Your task to perform on an android device: Clear the cart on bestbuy. Search for "apple airpods pro" on bestbuy, select the first entry, and add it to the cart. Image 0: 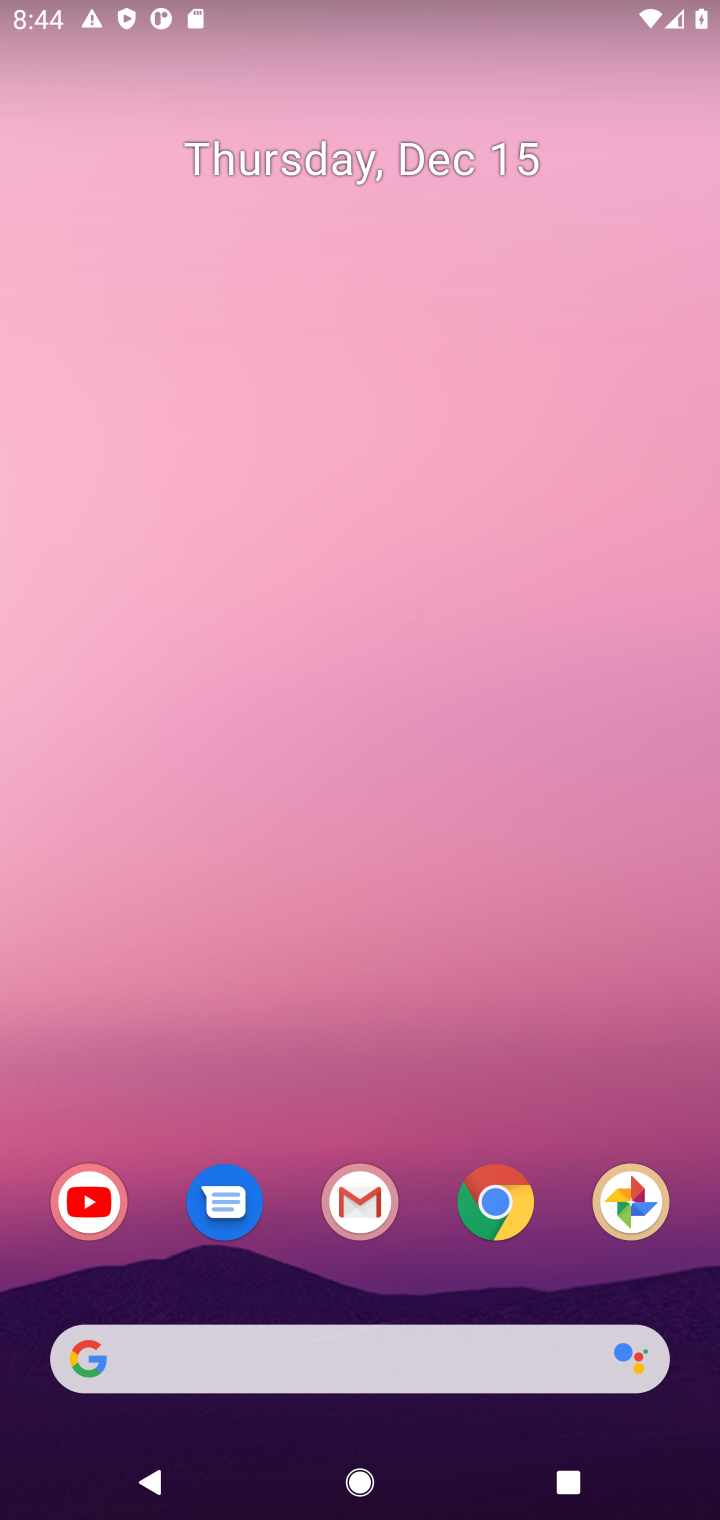
Step 0: click (506, 1211)
Your task to perform on an android device: Clear the cart on bestbuy. Search for "apple airpods pro" on bestbuy, select the first entry, and add it to the cart. Image 1: 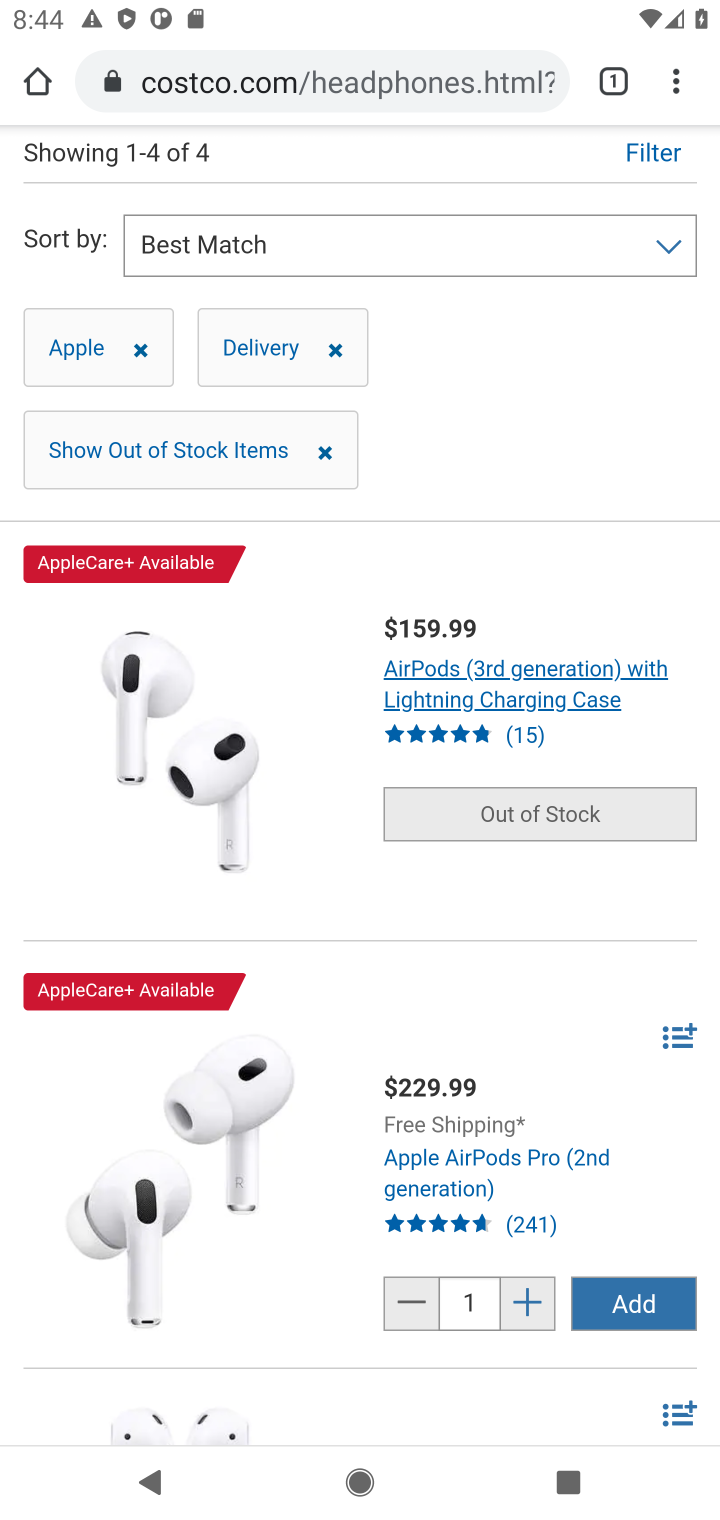
Step 1: click (257, 91)
Your task to perform on an android device: Clear the cart on bestbuy. Search for "apple airpods pro" on bestbuy, select the first entry, and add it to the cart. Image 2: 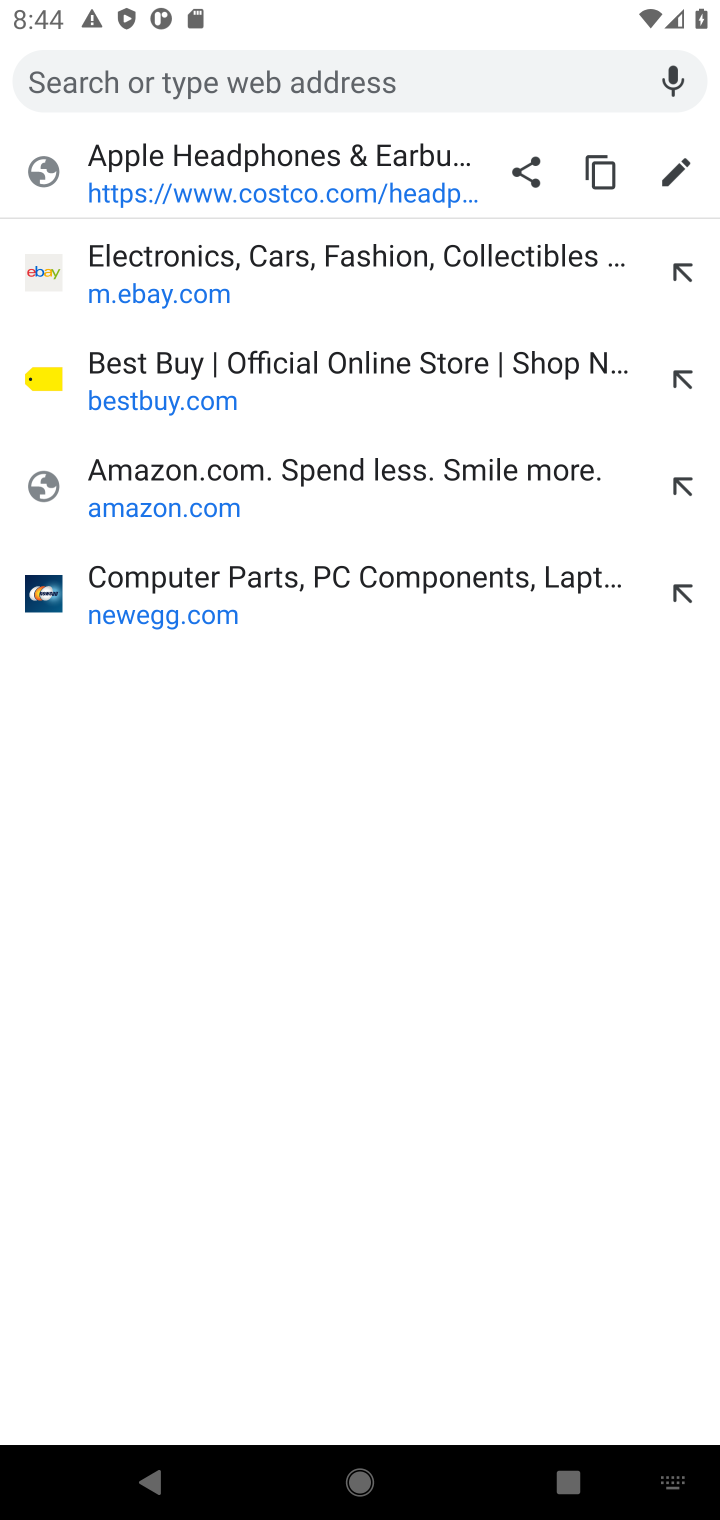
Step 2: click (132, 366)
Your task to perform on an android device: Clear the cart on bestbuy. Search for "apple airpods pro" on bestbuy, select the first entry, and add it to the cart. Image 3: 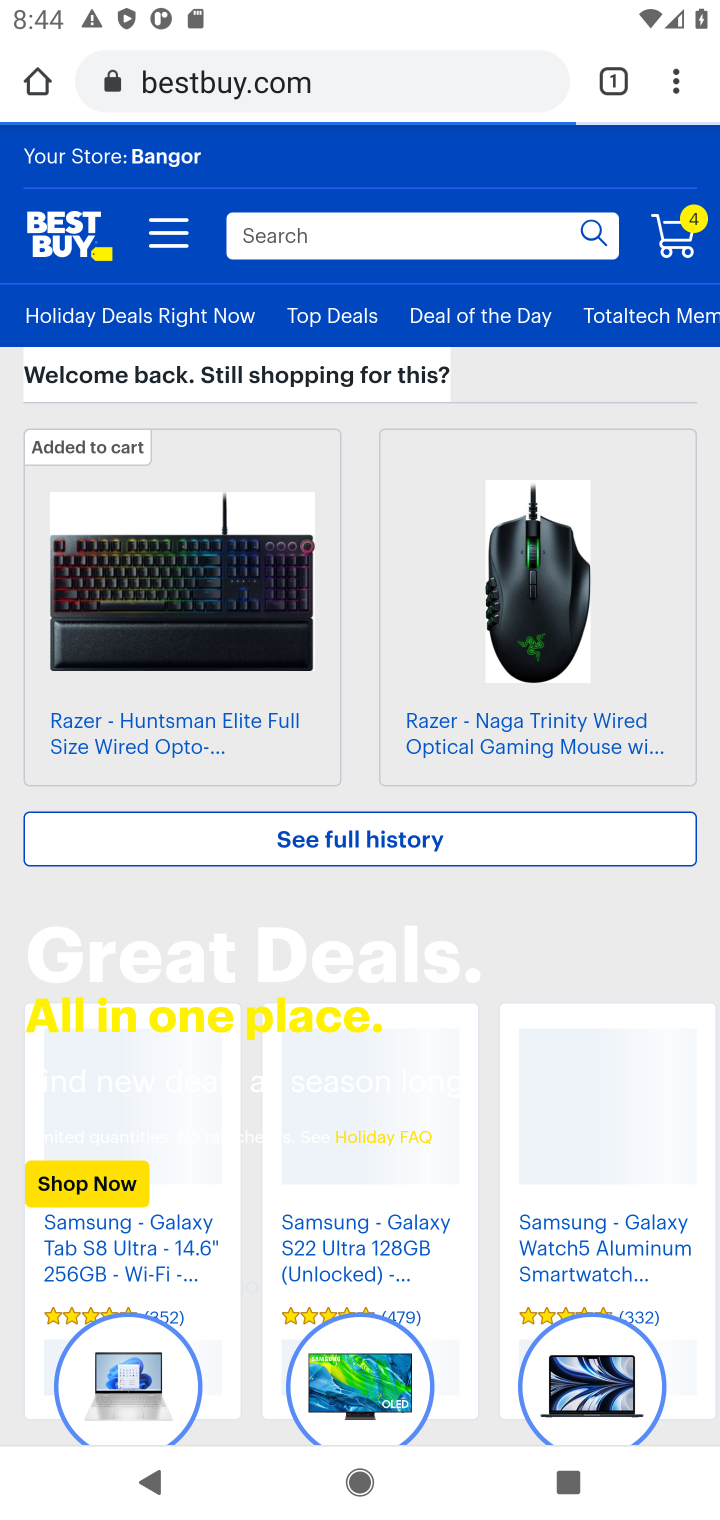
Step 3: click (677, 241)
Your task to perform on an android device: Clear the cart on bestbuy. Search for "apple airpods pro" on bestbuy, select the first entry, and add it to the cart. Image 4: 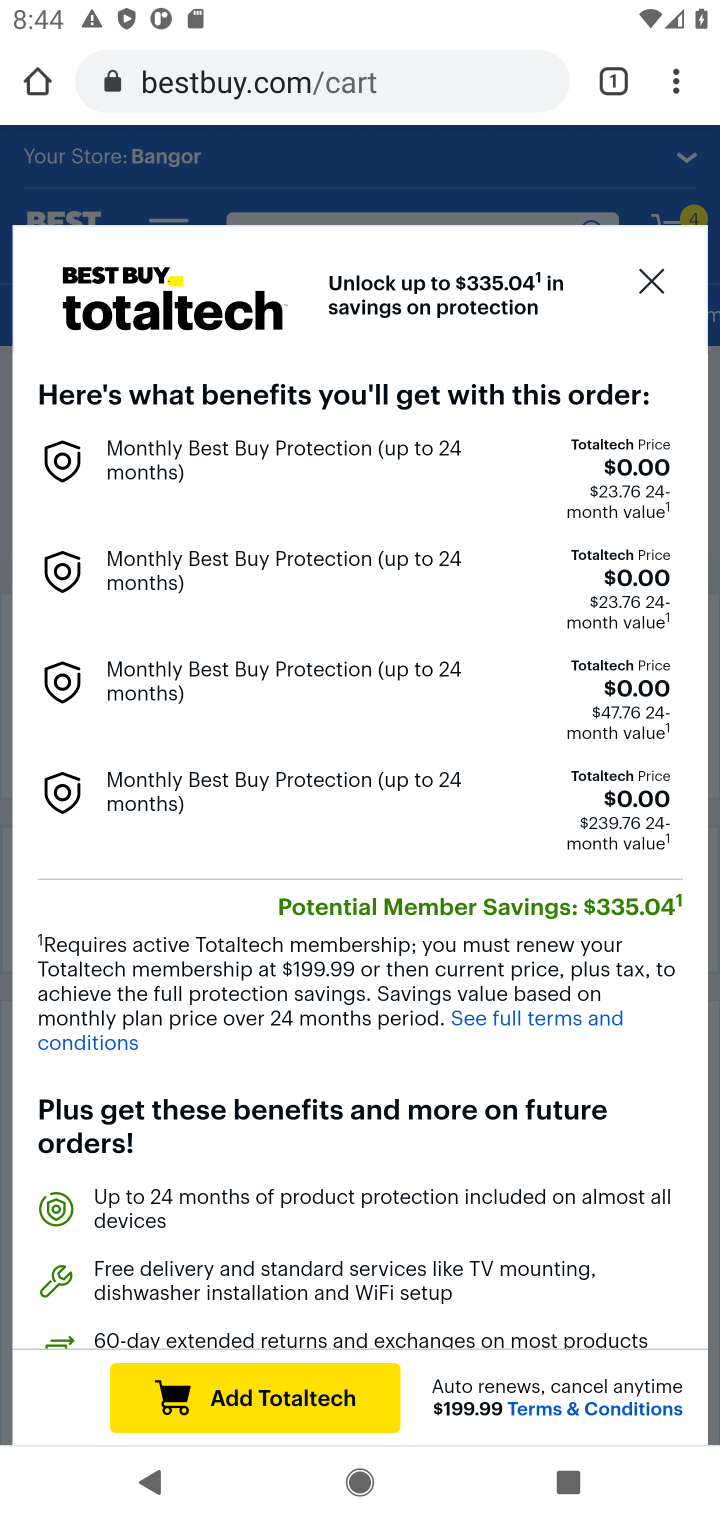
Step 4: click (652, 274)
Your task to perform on an android device: Clear the cart on bestbuy. Search for "apple airpods pro" on bestbuy, select the first entry, and add it to the cart. Image 5: 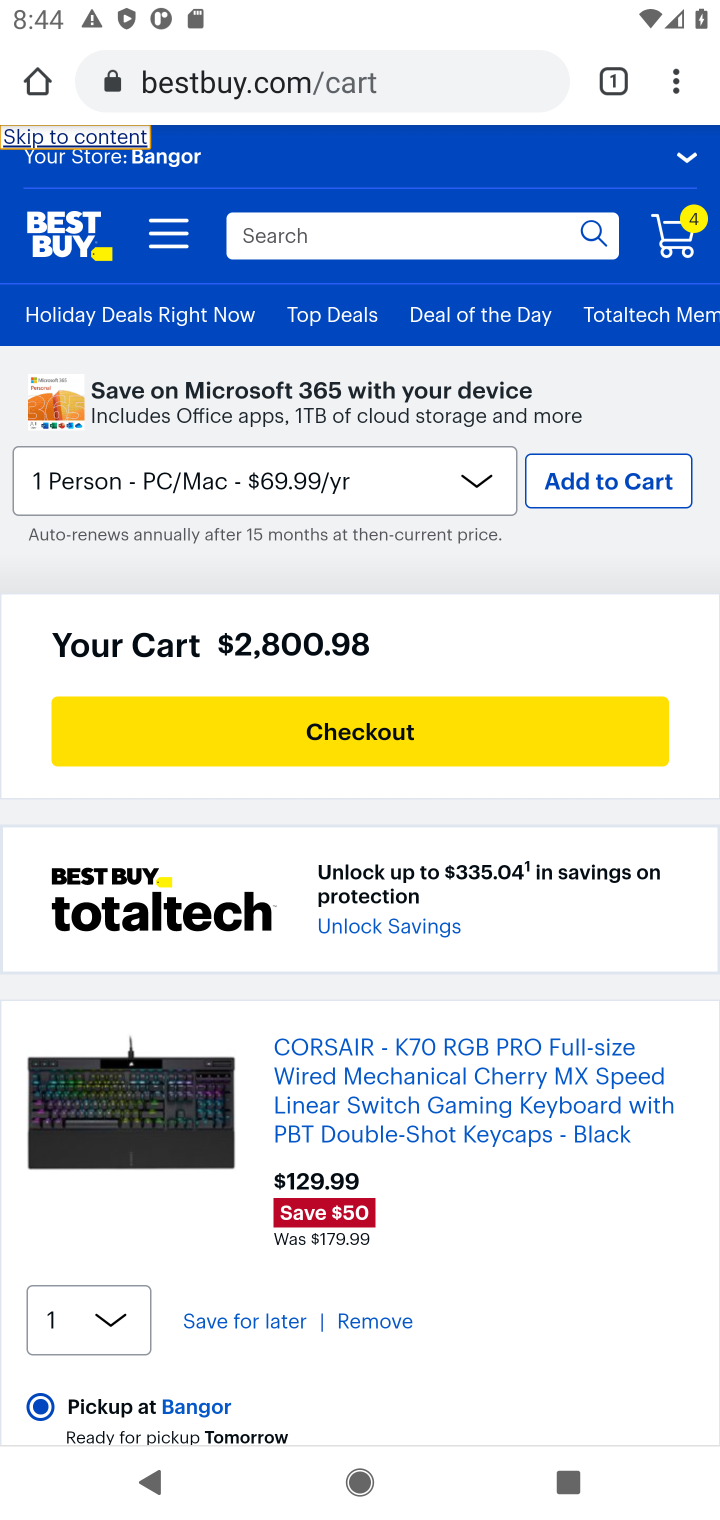
Step 5: click (356, 1322)
Your task to perform on an android device: Clear the cart on bestbuy. Search for "apple airpods pro" on bestbuy, select the first entry, and add it to the cart. Image 6: 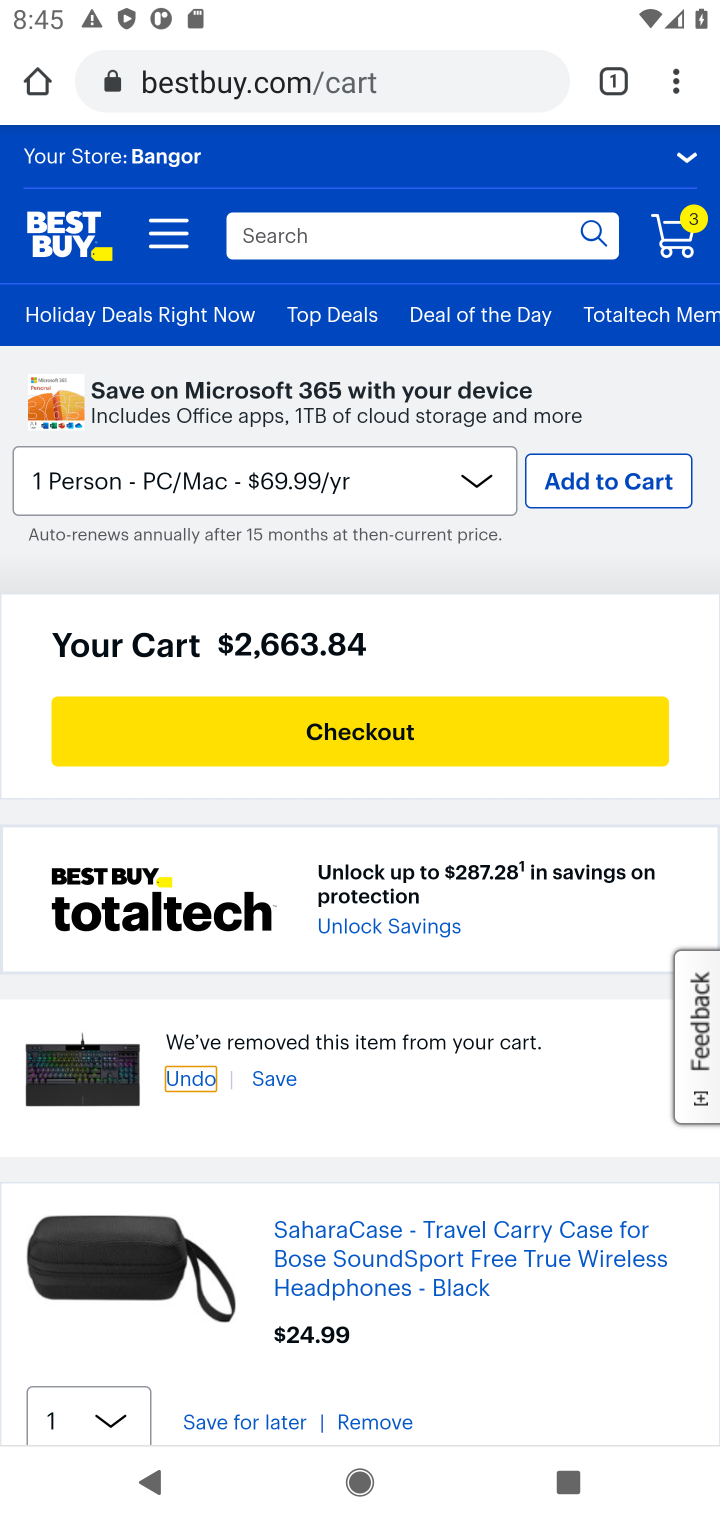
Step 6: drag from (332, 1182) to (302, 744)
Your task to perform on an android device: Clear the cart on bestbuy. Search for "apple airpods pro" on bestbuy, select the first entry, and add it to the cart. Image 7: 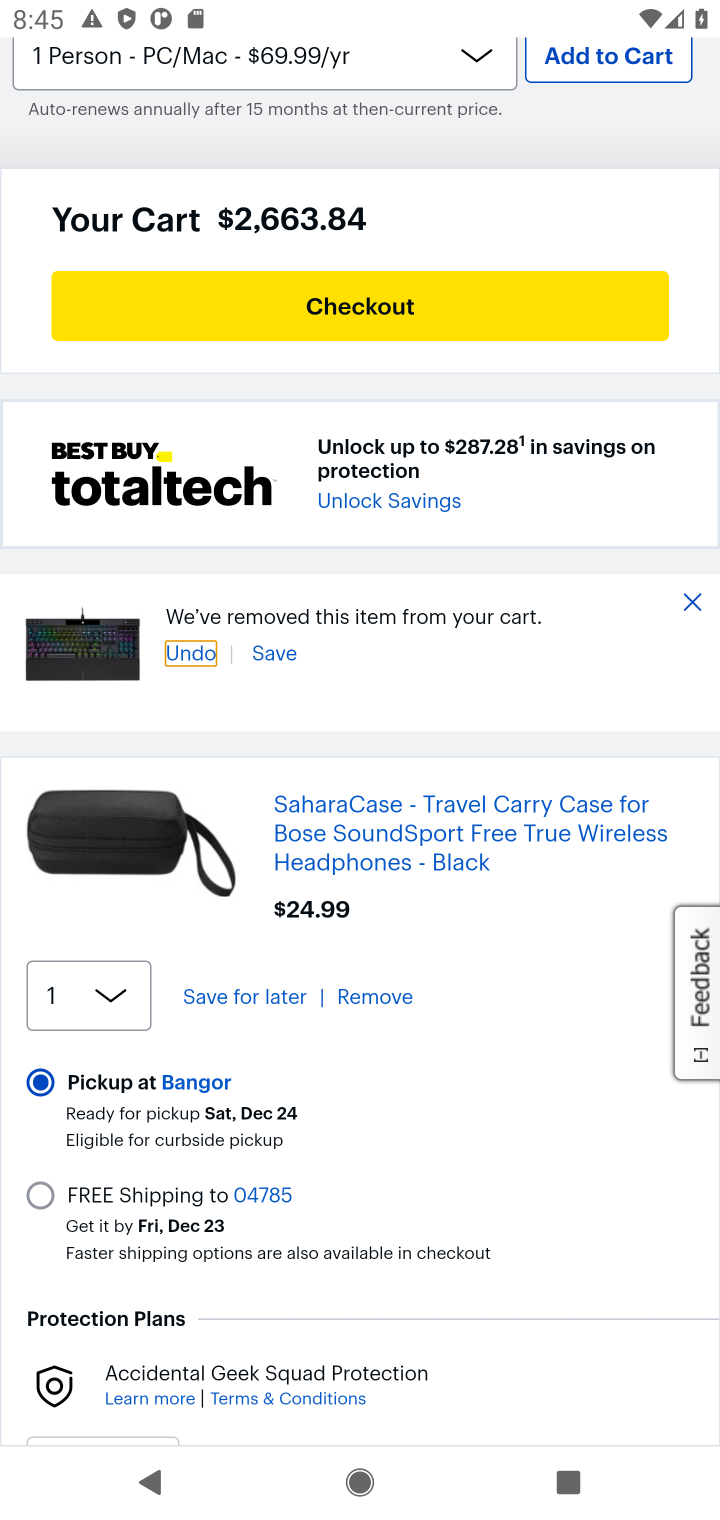
Step 7: click (382, 993)
Your task to perform on an android device: Clear the cart on bestbuy. Search for "apple airpods pro" on bestbuy, select the first entry, and add it to the cart. Image 8: 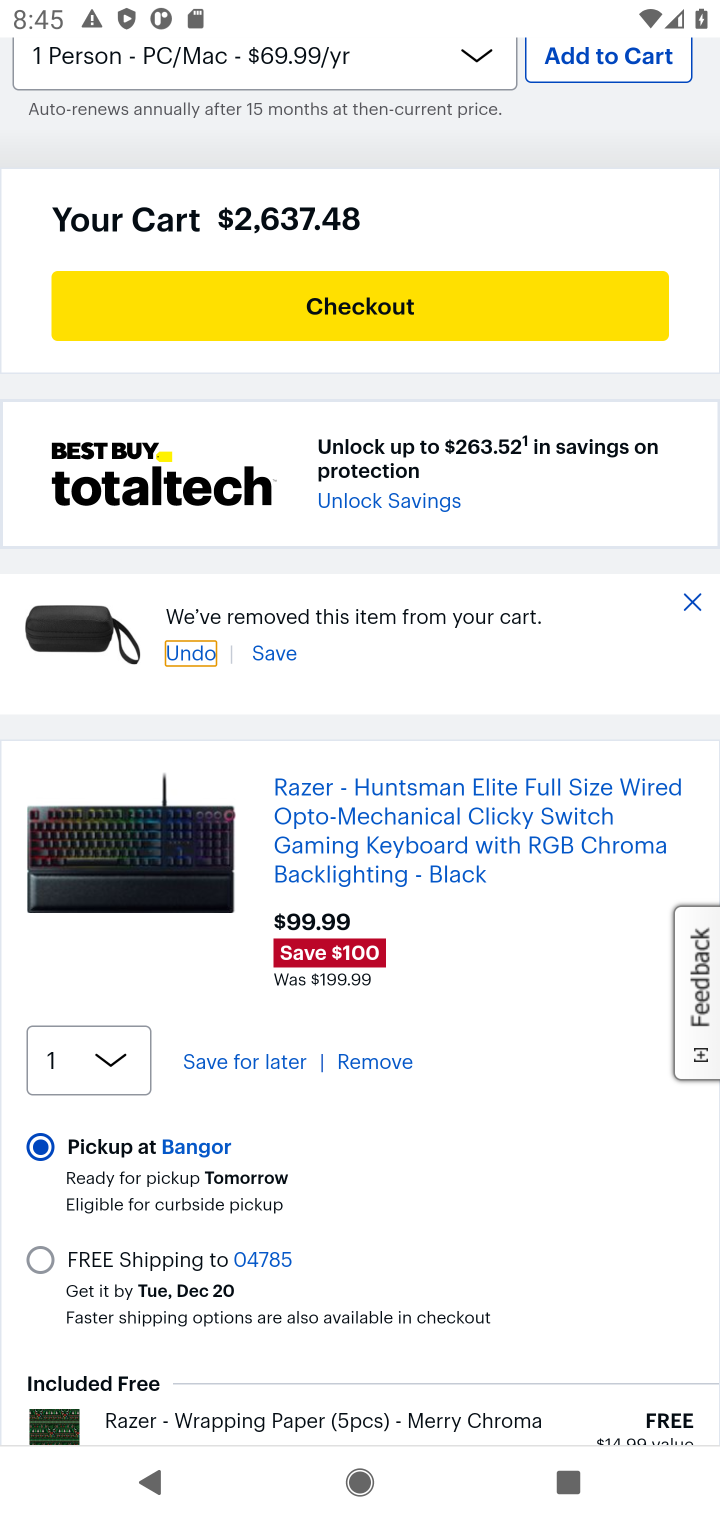
Step 8: click (368, 1060)
Your task to perform on an android device: Clear the cart on bestbuy. Search for "apple airpods pro" on bestbuy, select the first entry, and add it to the cart. Image 9: 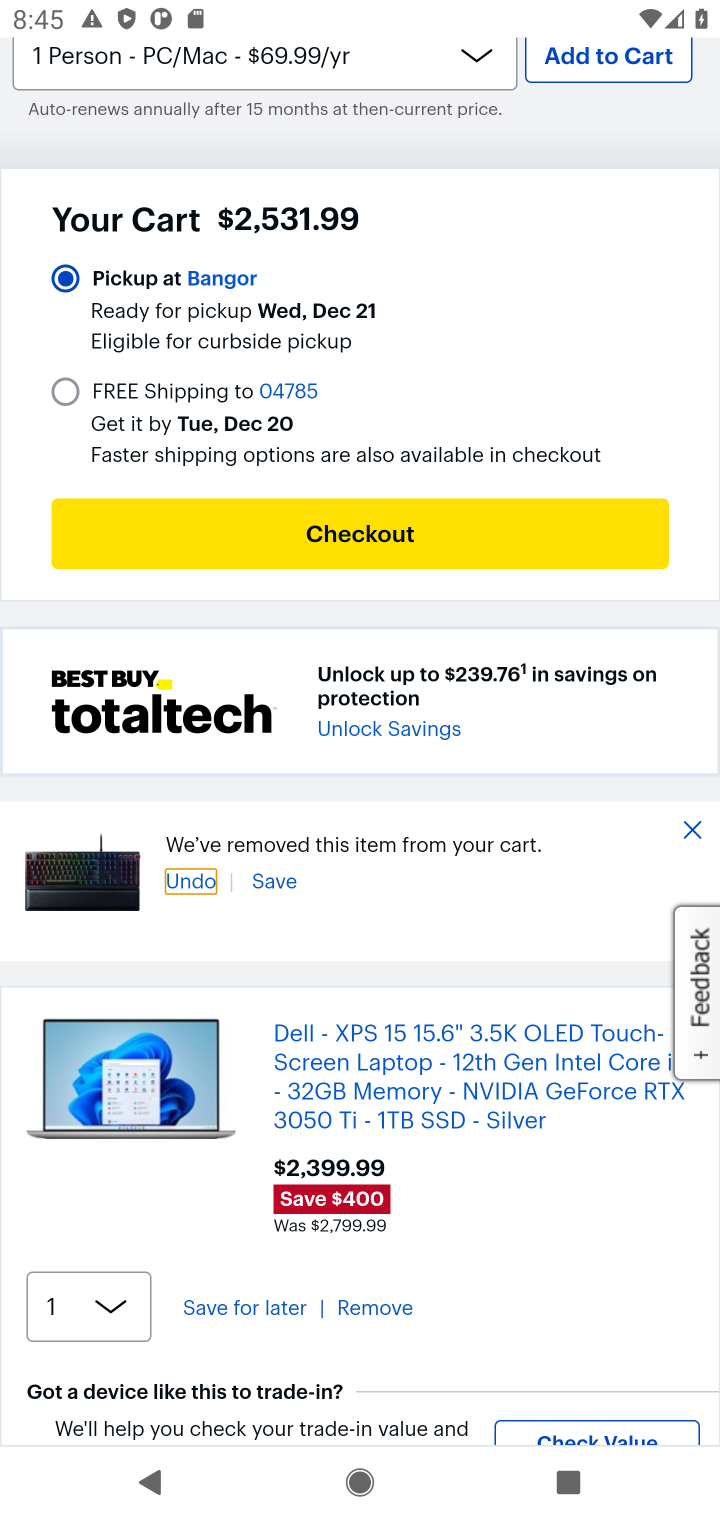
Step 9: click (393, 1308)
Your task to perform on an android device: Clear the cart on bestbuy. Search for "apple airpods pro" on bestbuy, select the first entry, and add it to the cart. Image 10: 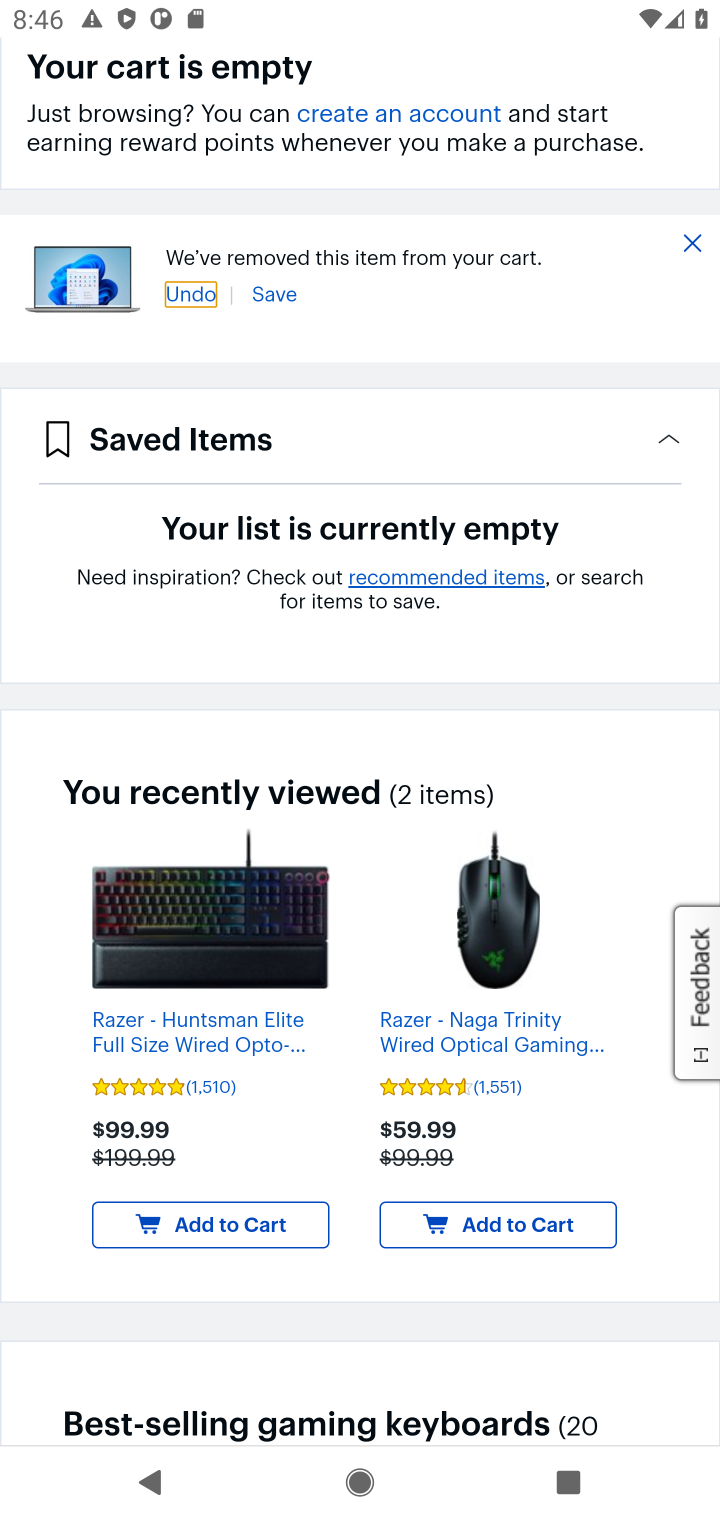
Step 10: drag from (335, 255) to (285, 903)
Your task to perform on an android device: Clear the cart on bestbuy. Search for "apple airpods pro" on bestbuy, select the first entry, and add it to the cart. Image 11: 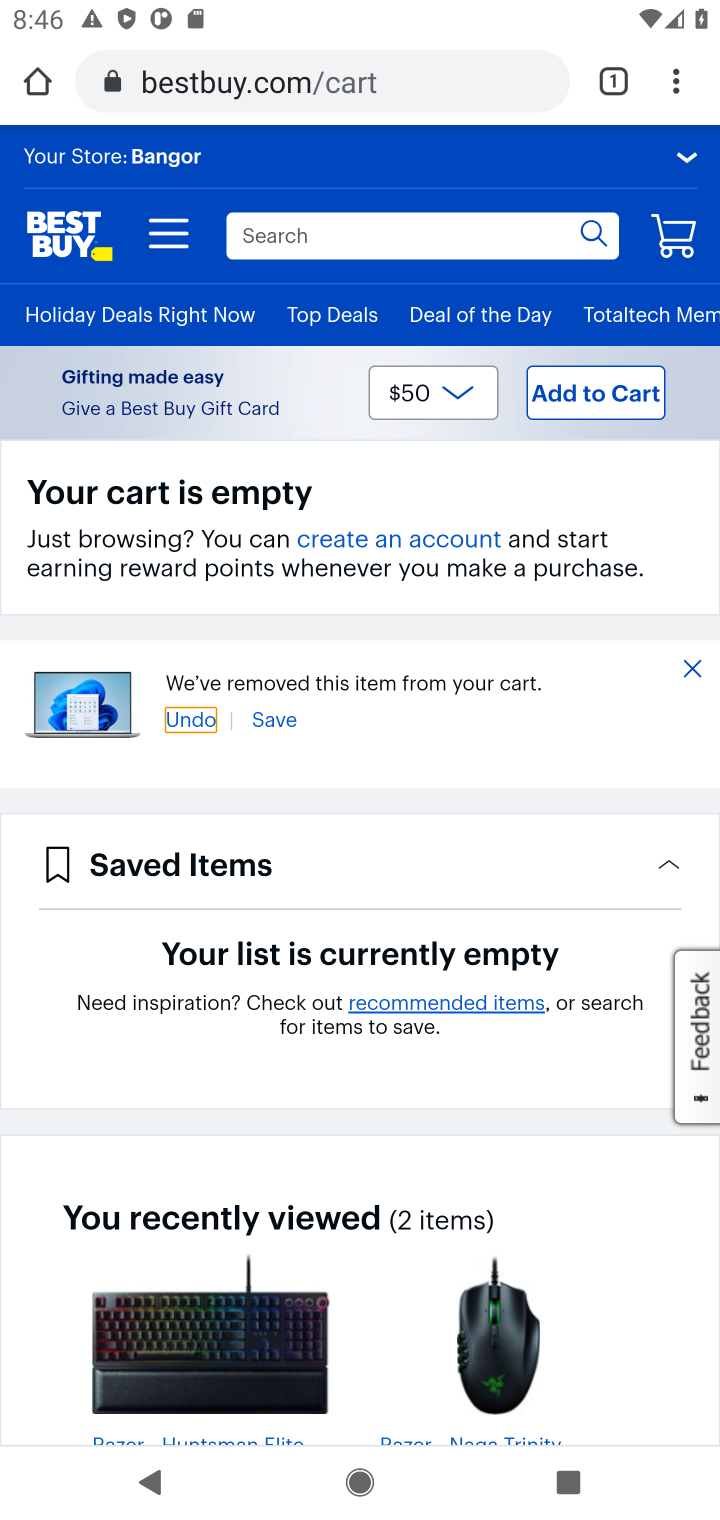
Step 11: click (333, 233)
Your task to perform on an android device: Clear the cart on bestbuy. Search for "apple airpods pro" on bestbuy, select the first entry, and add it to the cart. Image 12: 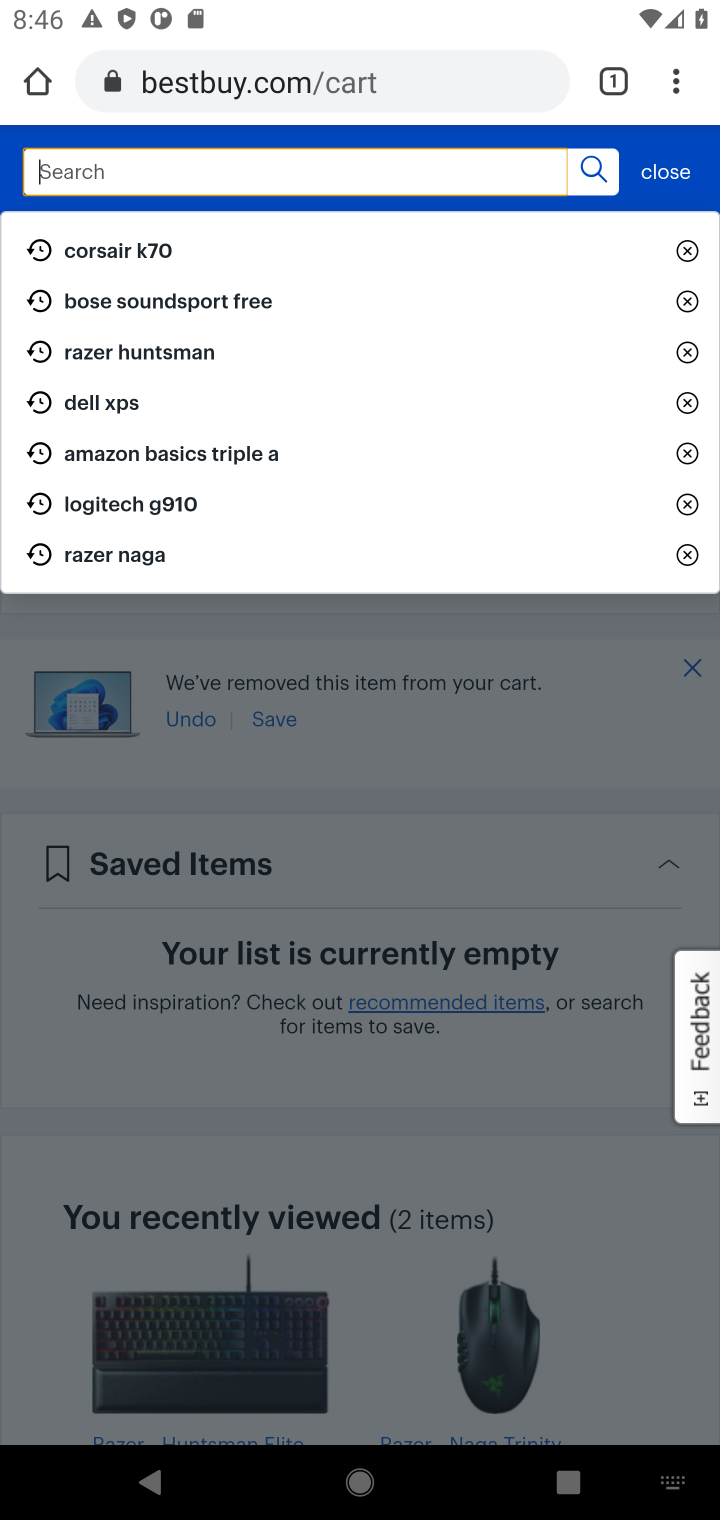
Step 12: type "apple airpods pro"
Your task to perform on an android device: Clear the cart on bestbuy. Search for "apple airpods pro" on bestbuy, select the first entry, and add it to the cart. Image 13: 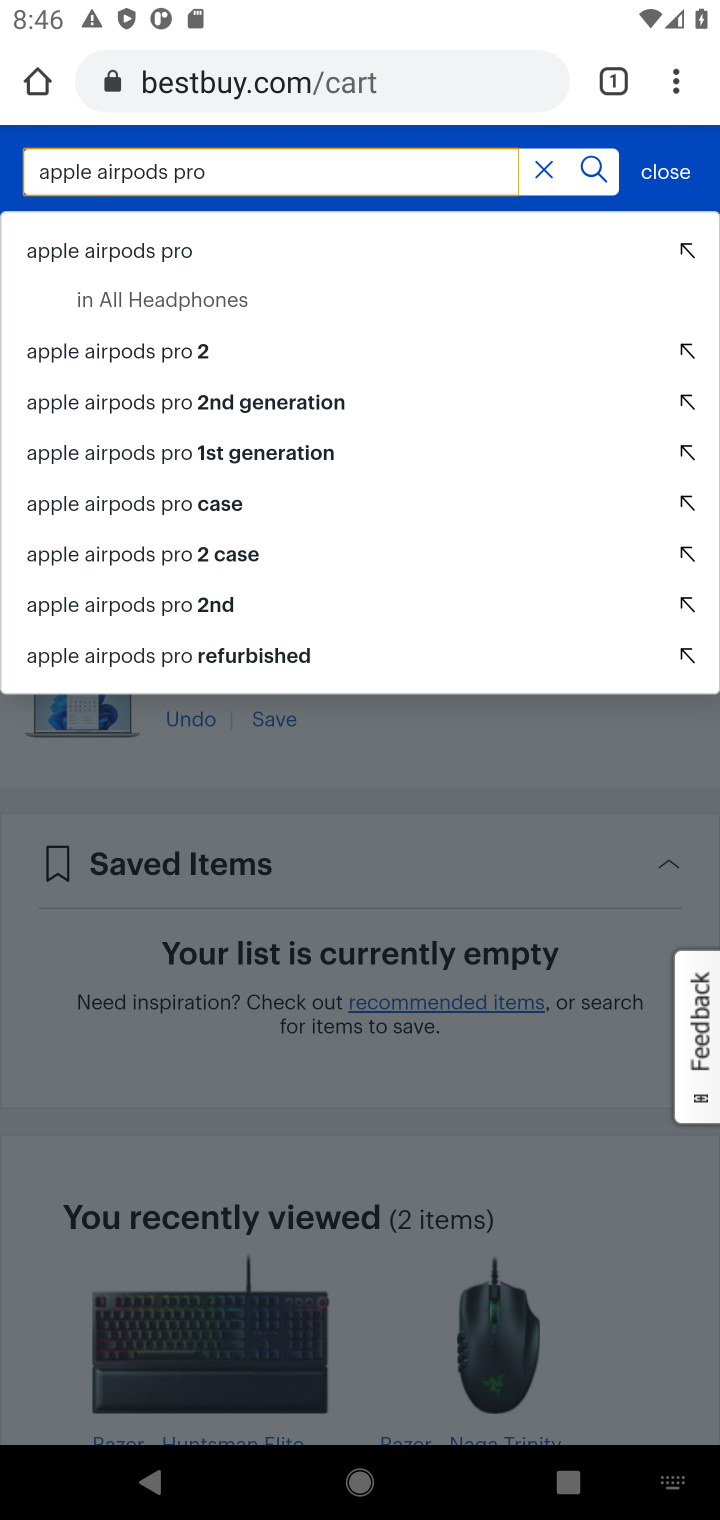
Step 13: click (158, 257)
Your task to perform on an android device: Clear the cart on bestbuy. Search for "apple airpods pro" on bestbuy, select the first entry, and add it to the cart. Image 14: 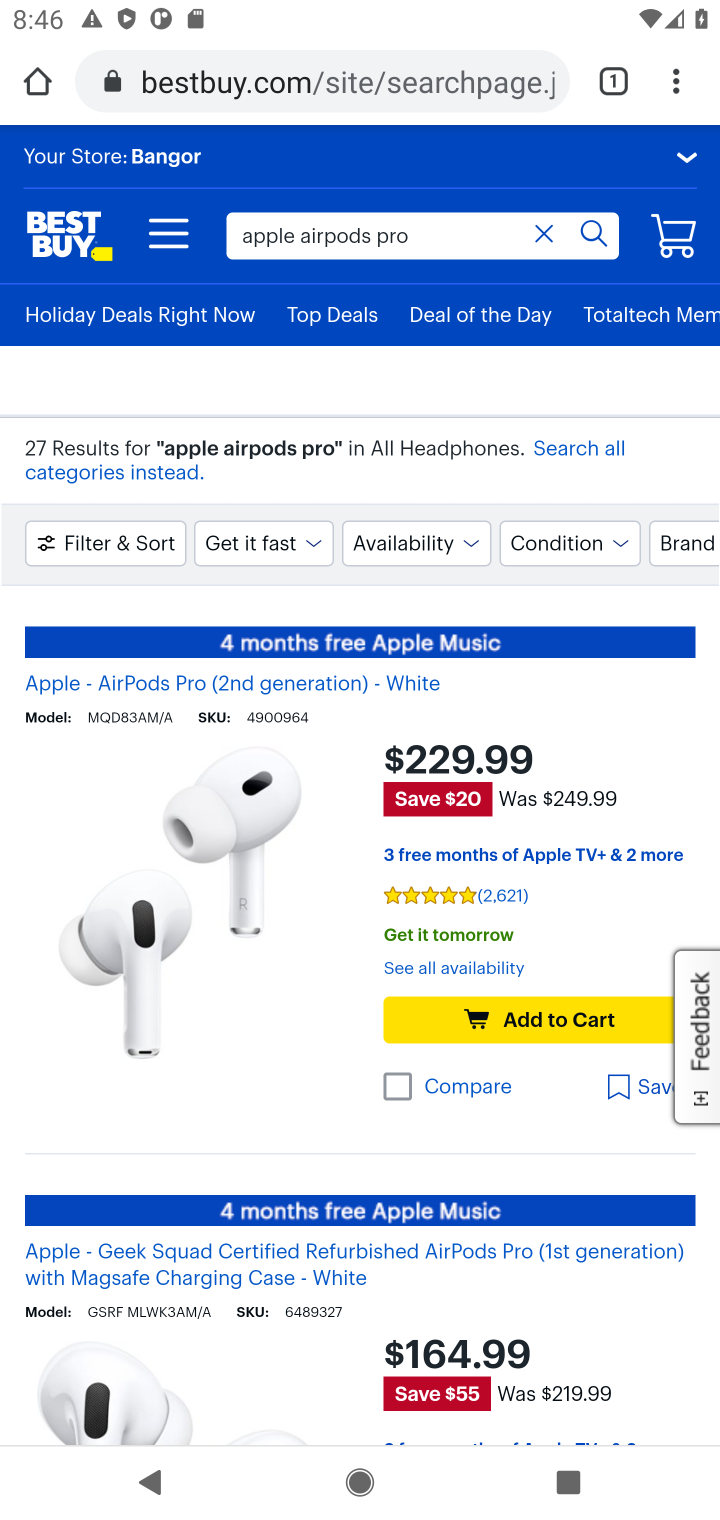
Step 14: click (517, 1010)
Your task to perform on an android device: Clear the cart on bestbuy. Search for "apple airpods pro" on bestbuy, select the first entry, and add it to the cart. Image 15: 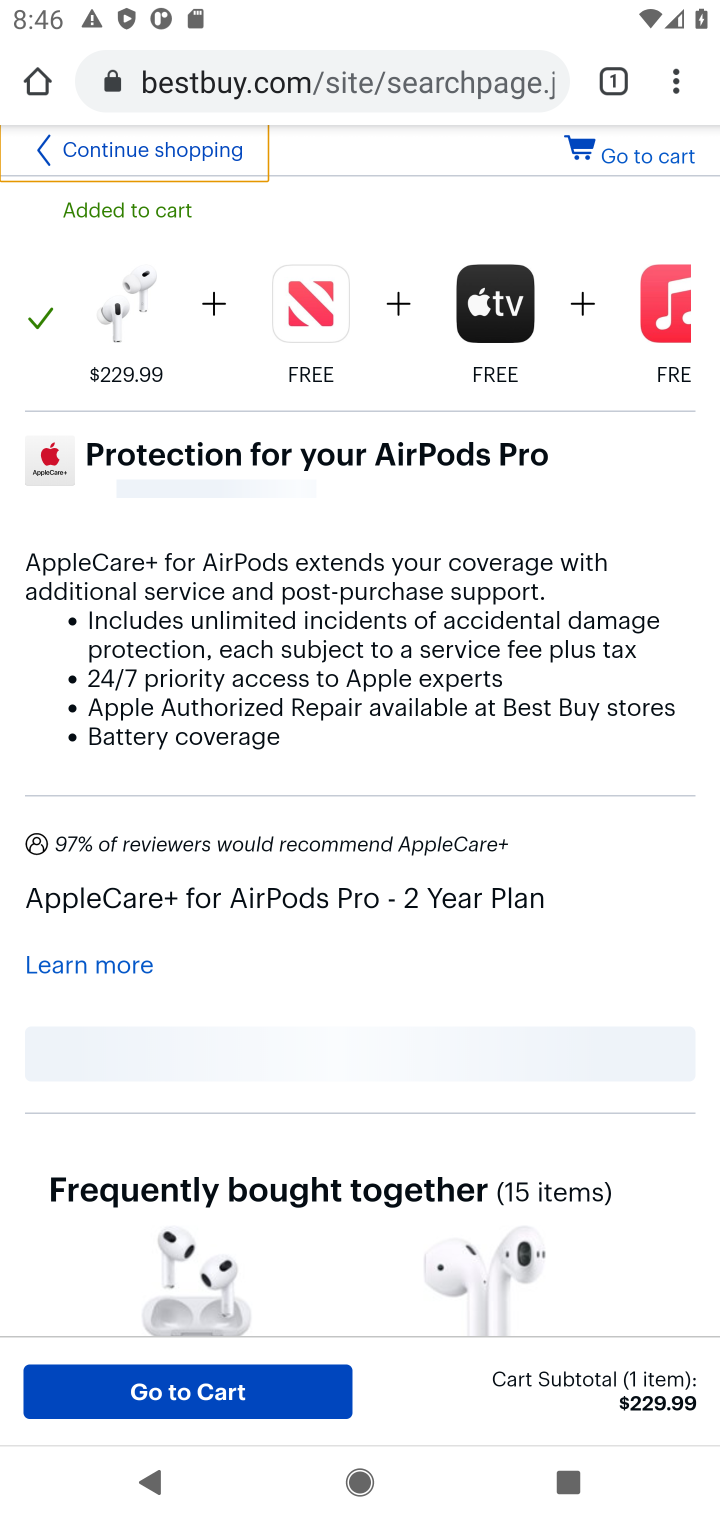
Step 15: task complete